Your task to perform on an android device: star an email in the gmail app Image 0: 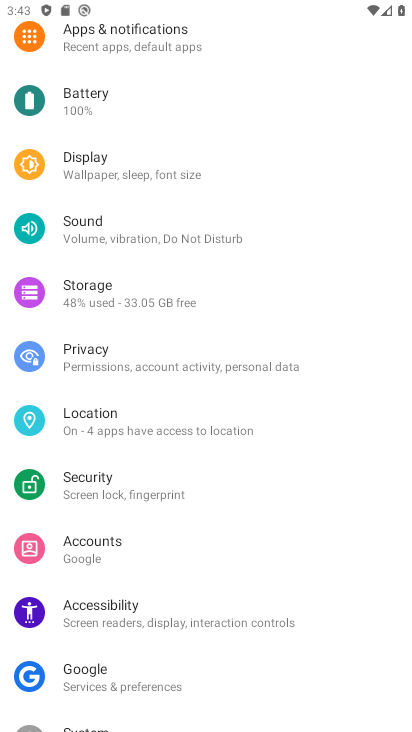
Step 0: press home button
Your task to perform on an android device: star an email in the gmail app Image 1: 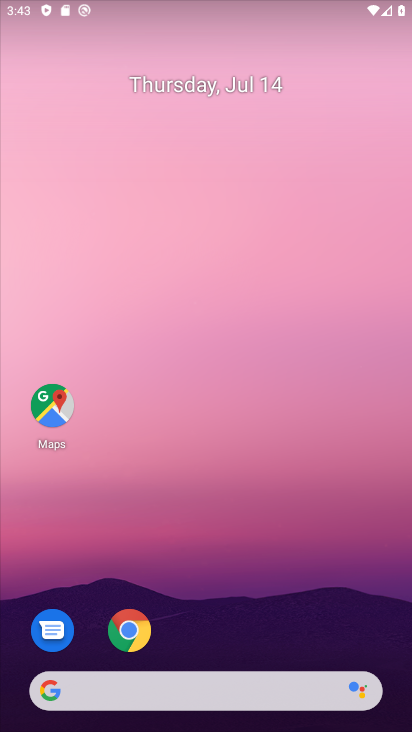
Step 1: drag from (262, 669) to (363, 1)
Your task to perform on an android device: star an email in the gmail app Image 2: 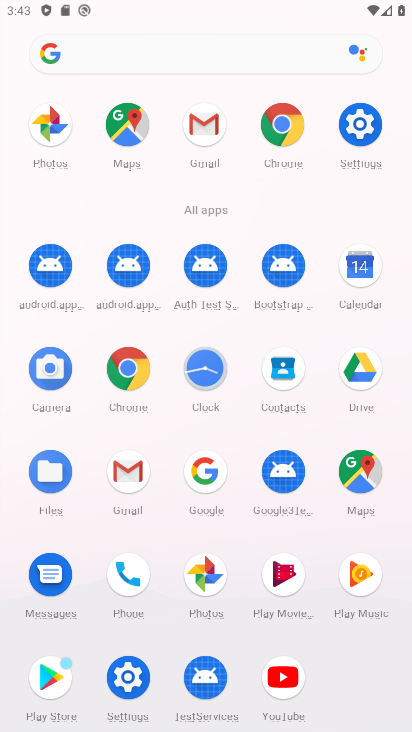
Step 2: click (142, 469)
Your task to perform on an android device: star an email in the gmail app Image 3: 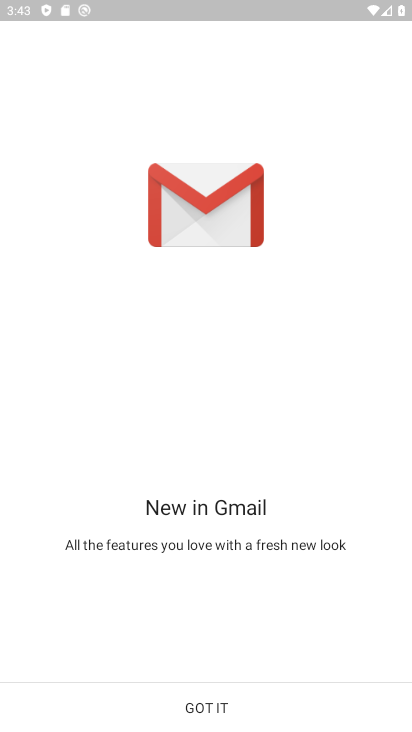
Step 3: click (221, 710)
Your task to perform on an android device: star an email in the gmail app Image 4: 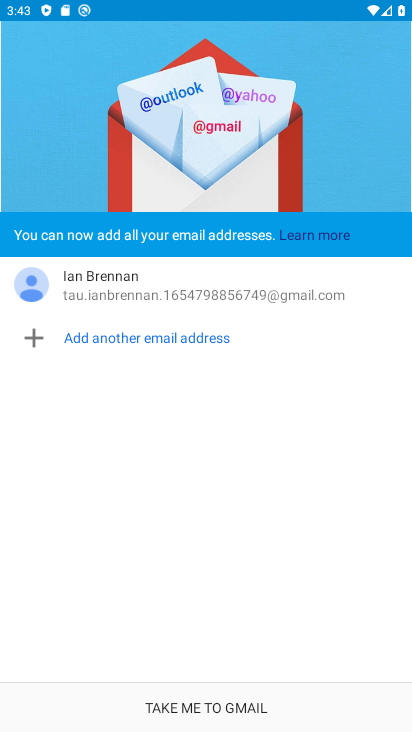
Step 4: click (221, 710)
Your task to perform on an android device: star an email in the gmail app Image 5: 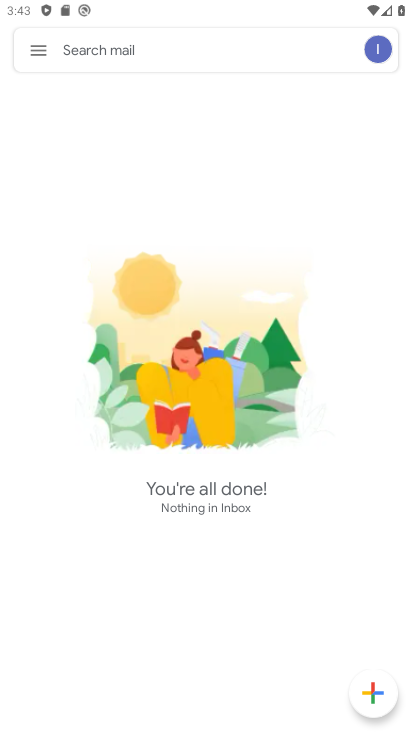
Step 5: click (32, 46)
Your task to perform on an android device: star an email in the gmail app Image 6: 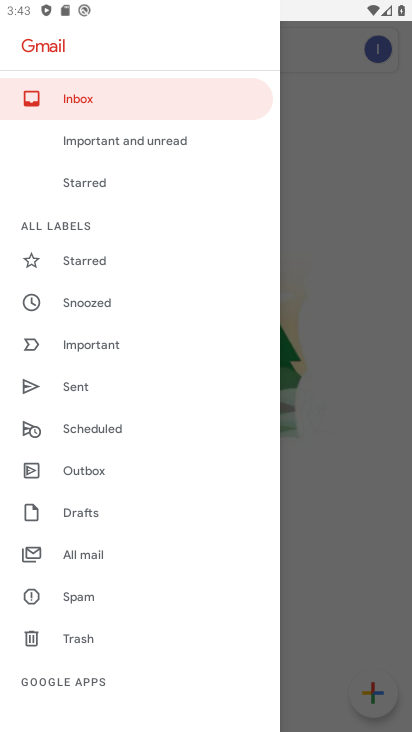
Step 6: click (103, 263)
Your task to perform on an android device: star an email in the gmail app Image 7: 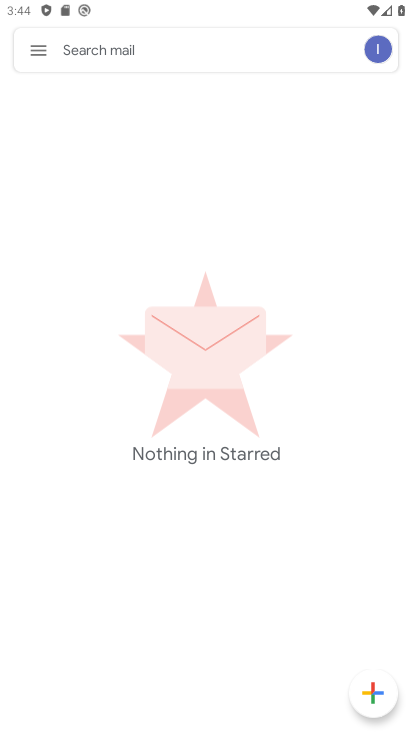
Step 7: task complete